Your task to perform on an android device: What's on my calendar tomorrow? Image 0: 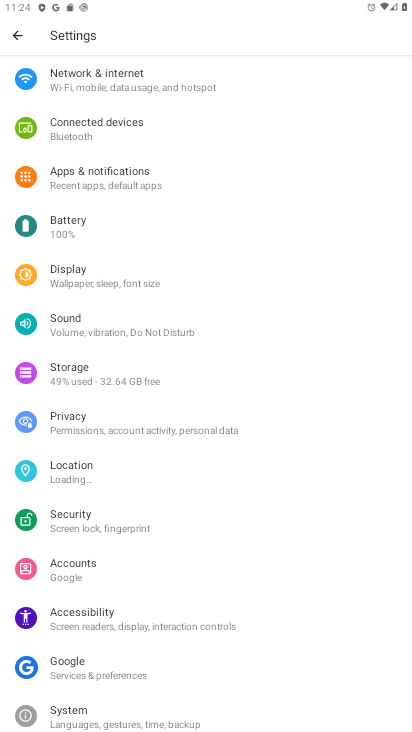
Step 0: press home button
Your task to perform on an android device: What's on my calendar tomorrow? Image 1: 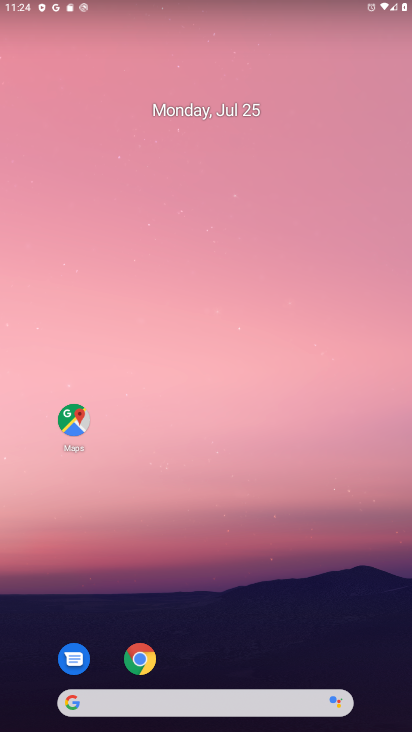
Step 1: click (143, 123)
Your task to perform on an android device: What's on my calendar tomorrow? Image 2: 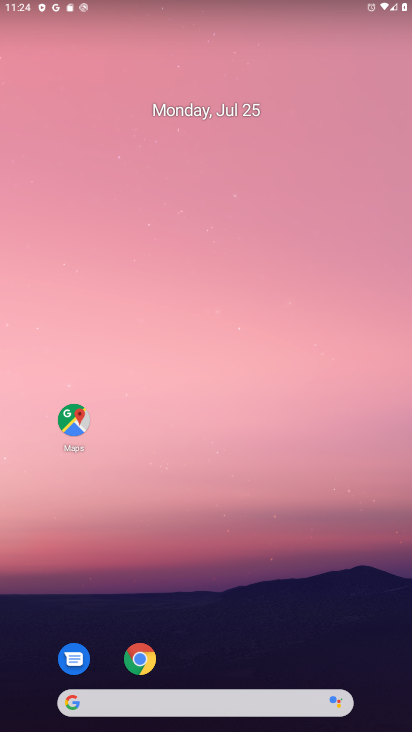
Step 2: drag from (219, 585) to (273, 72)
Your task to perform on an android device: What's on my calendar tomorrow? Image 3: 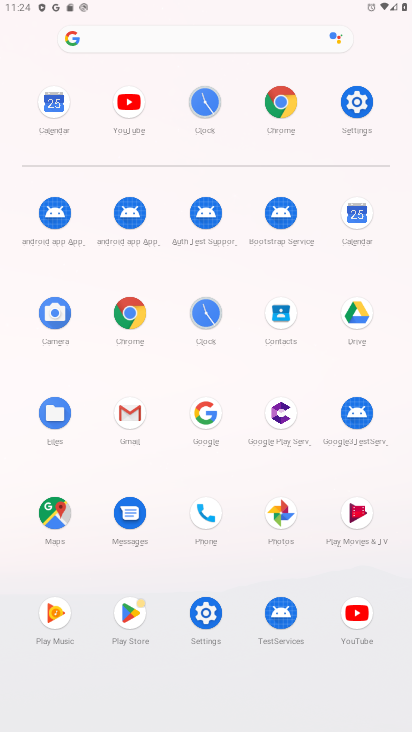
Step 3: click (356, 214)
Your task to perform on an android device: What's on my calendar tomorrow? Image 4: 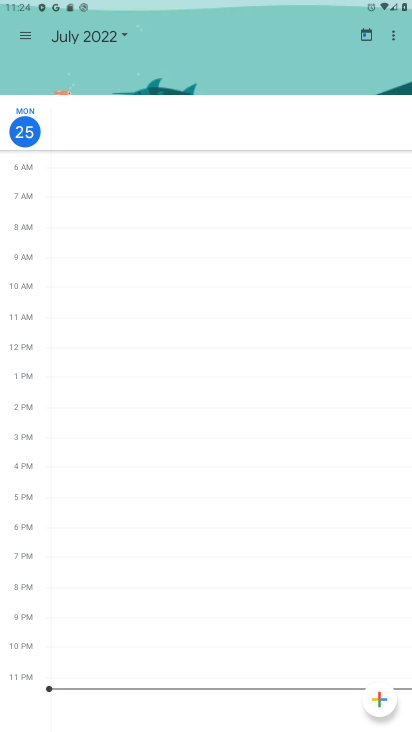
Step 4: click (128, 34)
Your task to perform on an android device: What's on my calendar tomorrow? Image 5: 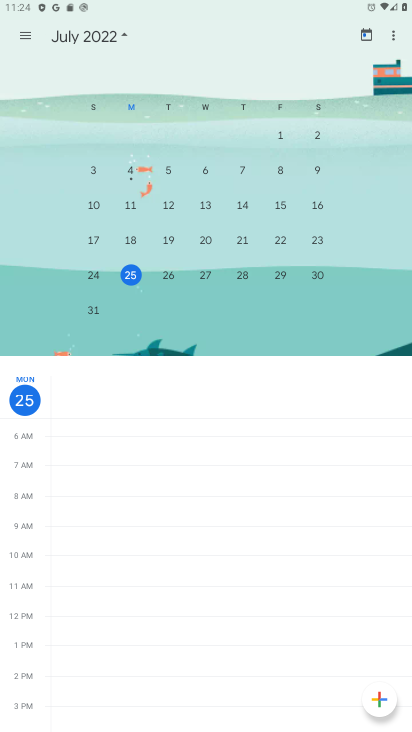
Step 5: click (164, 273)
Your task to perform on an android device: What's on my calendar tomorrow? Image 6: 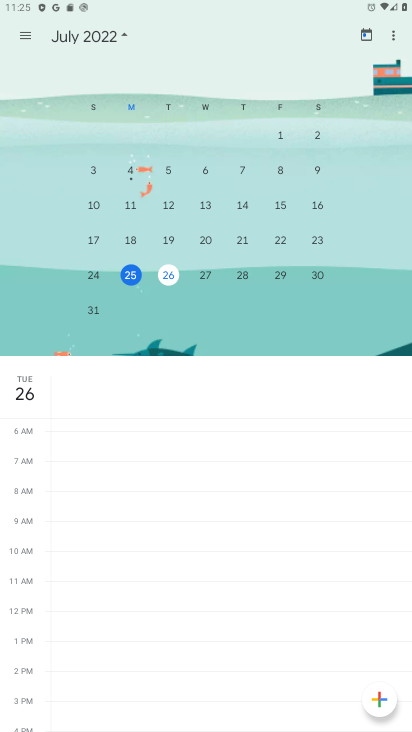
Step 6: task complete